Your task to perform on an android device: see sites visited before in the chrome app Image 0: 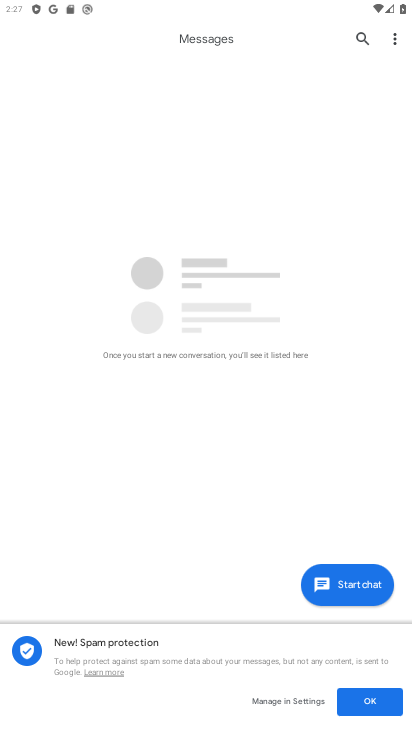
Step 0: press home button
Your task to perform on an android device: see sites visited before in the chrome app Image 1: 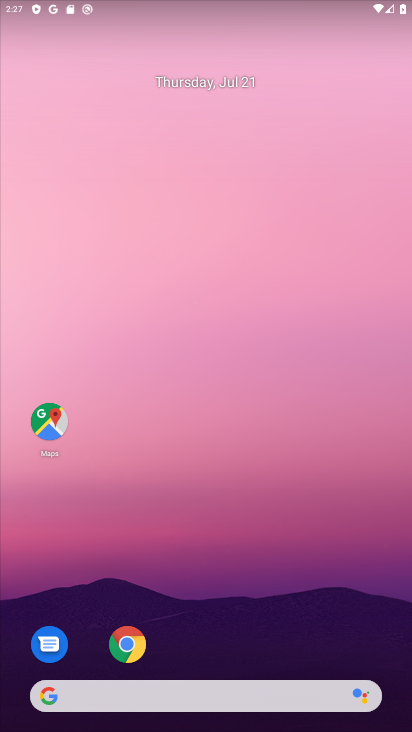
Step 1: click (126, 635)
Your task to perform on an android device: see sites visited before in the chrome app Image 2: 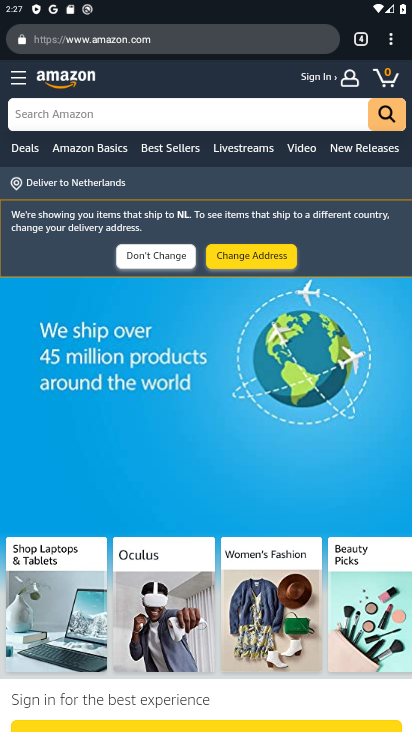
Step 2: click (395, 42)
Your task to perform on an android device: see sites visited before in the chrome app Image 3: 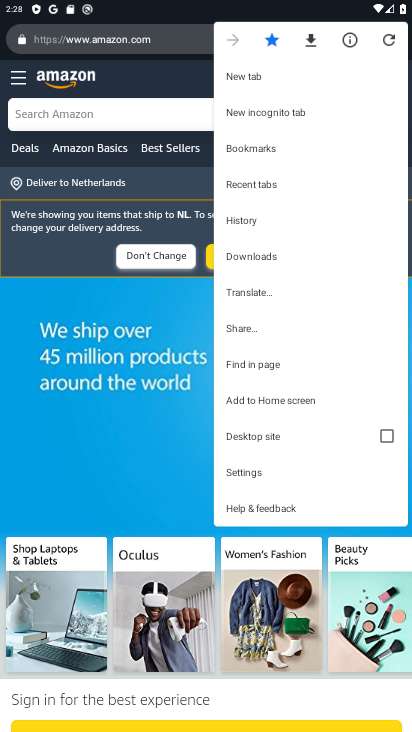
Step 3: click (265, 217)
Your task to perform on an android device: see sites visited before in the chrome app Image 4: 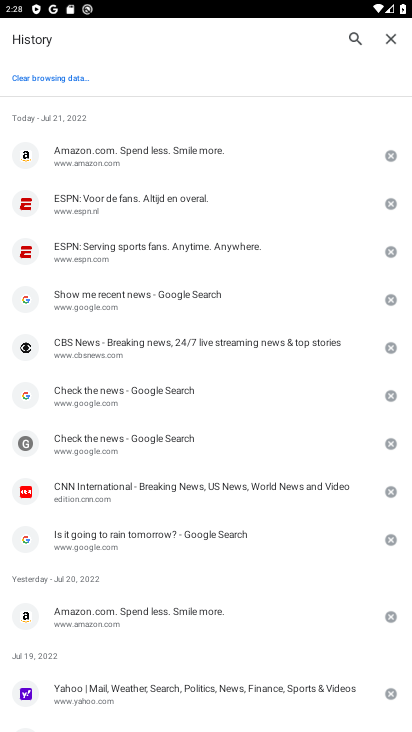
Step 4: task complete